Your task to perform on an android device: check battery use Image 0: 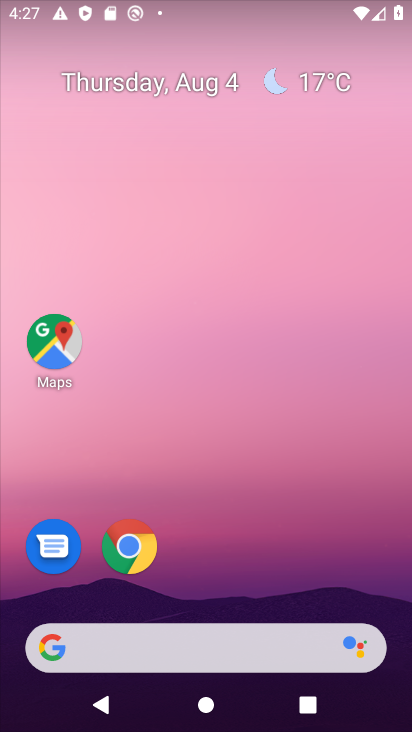
Step 0: drag from (234, 539) to (214, 254)
Your task to perform on an android device: check battery use Image 1: 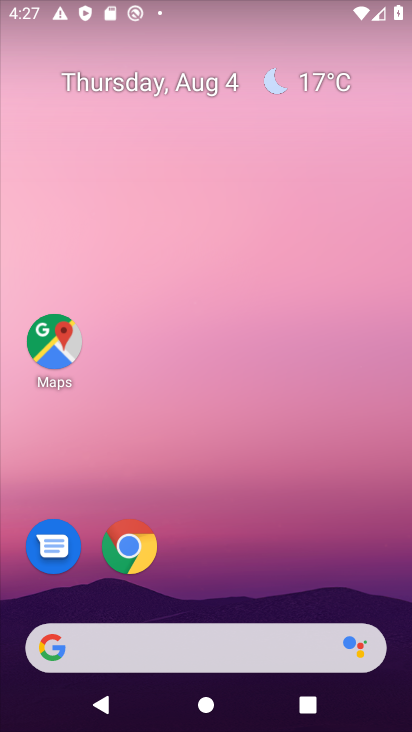
Step 1: drag from (191, 479) to (208, 273)
Your task to perform on an android device: check battery use Image 2: 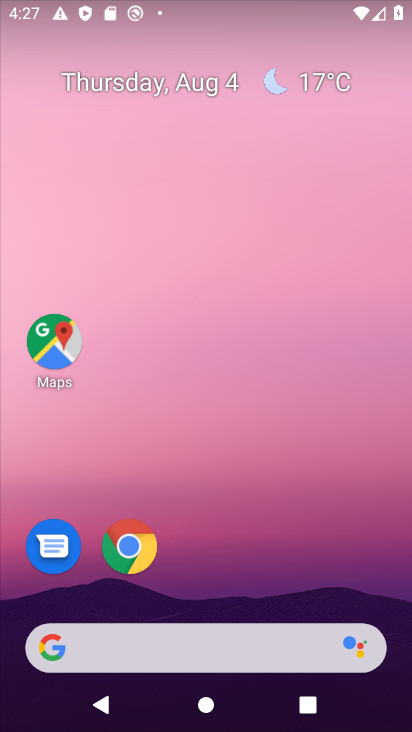
Step 2: drag from (183, 543) to (206, 136)
Your task to perform on an android device: check battery use Image 3: 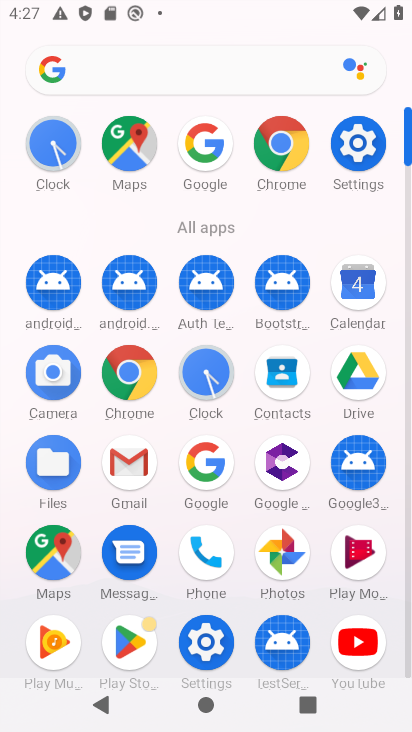
Step 3: click (359, 136)
Your task to perform on an android device: check battery use Image 4: 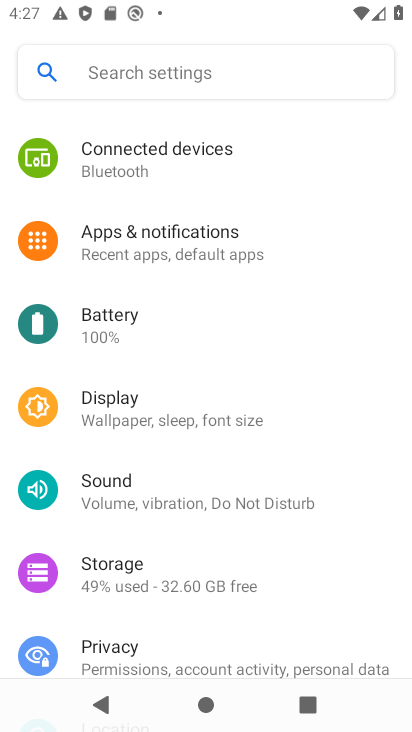
Step 4: click (95, 342)
Your task to perform on an android device: check battery use Image 5: 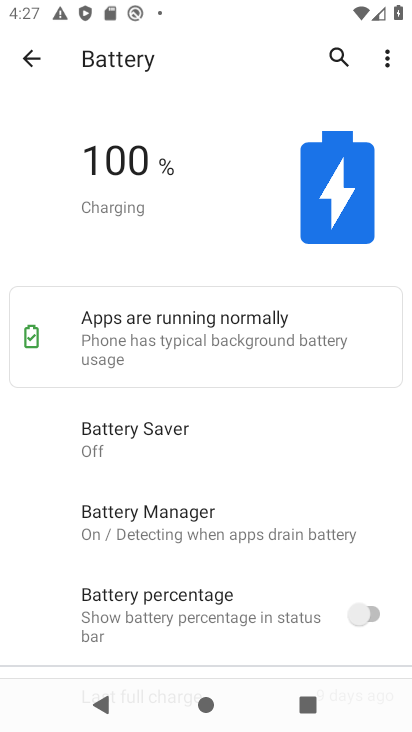
Step 5: task complete